Your task to perform on an android device: empty trash in the gmail app Image 0: 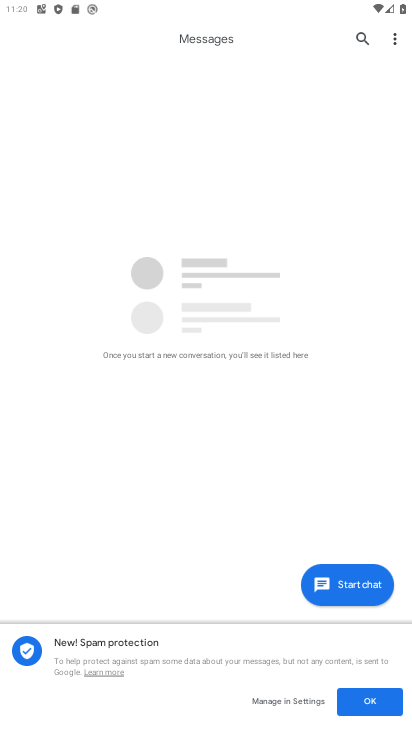
Step 0: press home button
Your task to perform on an android device: empty trash in the gmail app Image 1: 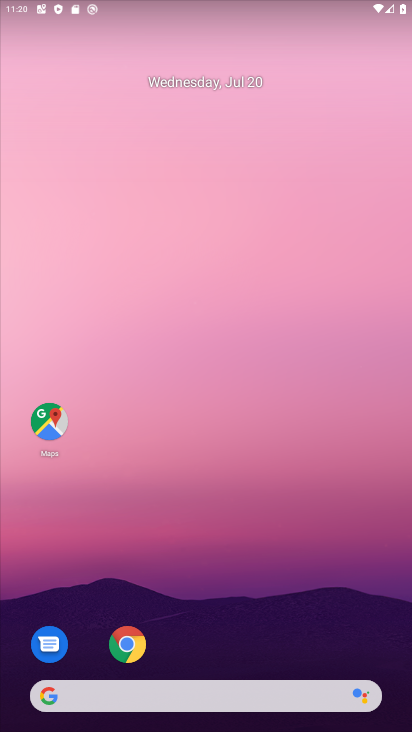
Step 1: drag from (155, 669) to (213, 198)
Your task to perform on an android device: empty trash in the gmail app Image 2: 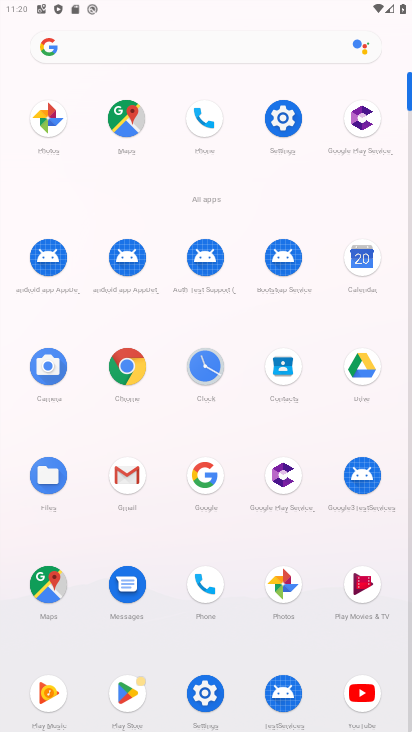
Step 2: click (136, 475)
Your task to perform on an android device: empty trash in the gmail app Image 3: 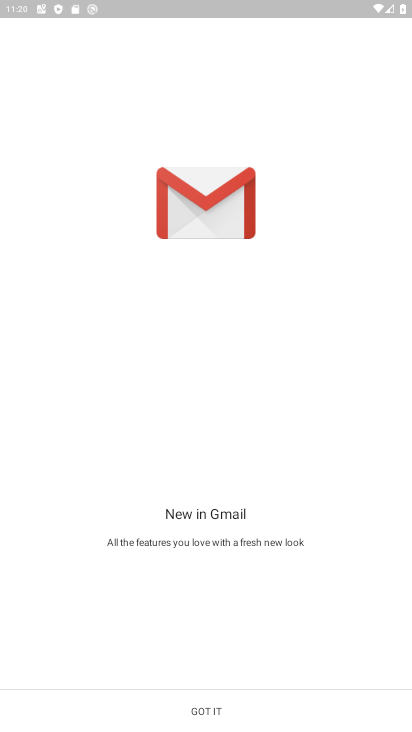
Step 3: click (227, 726)
Your task to perform on an android device: empty trash in the gmail app Image 4: 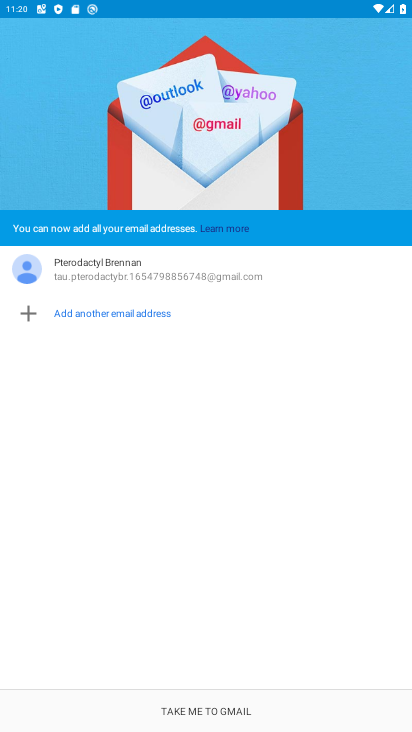
Step 4: click (226, 725)
Your task to perform on an android device: empty trash in the gmail app Image 5: 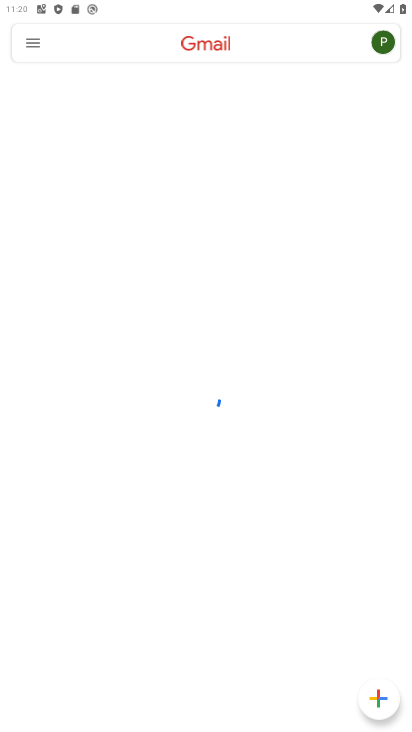
Step 5: click (35, 43)
Your task to perform on an android device: empty trash in the gmail app Image 6: 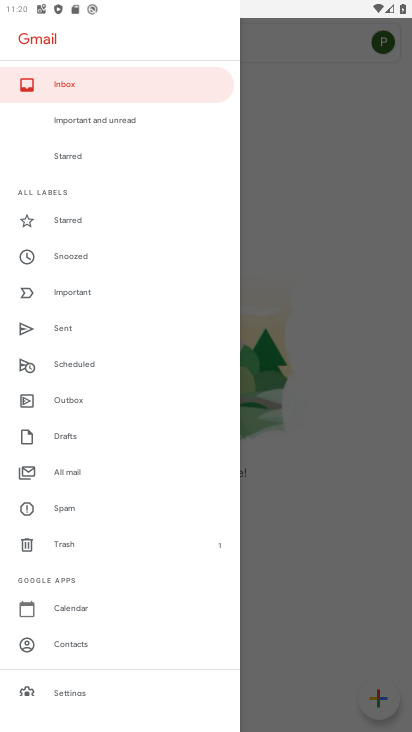
Step 6: click (65, 539)
Your task to perform on an android device: empty trash in the gmail app Image 7: 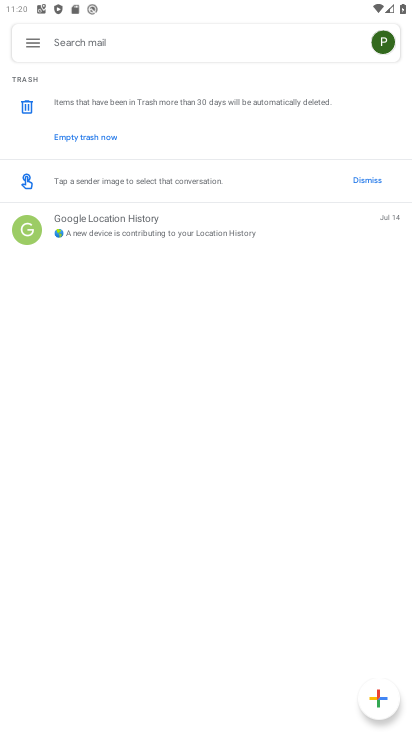
Step 7: task complete